Your task to perform on an android device: find which apps use the phone's location Image 0: 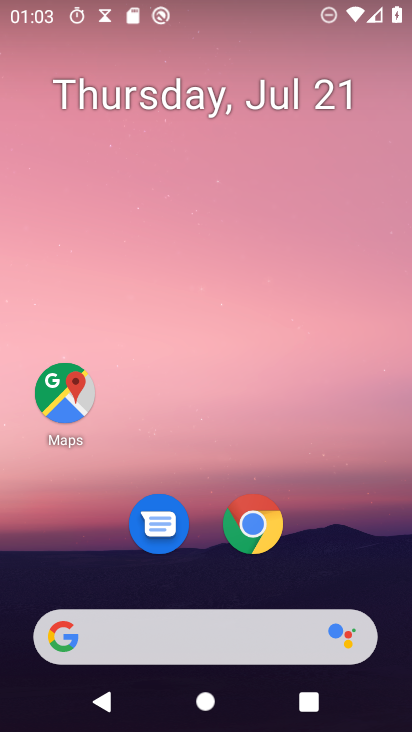
Step 0: drag from (253, 639) to (330, 236)
Your task to perform on an android device: find which apps use the phone's location Image 1: 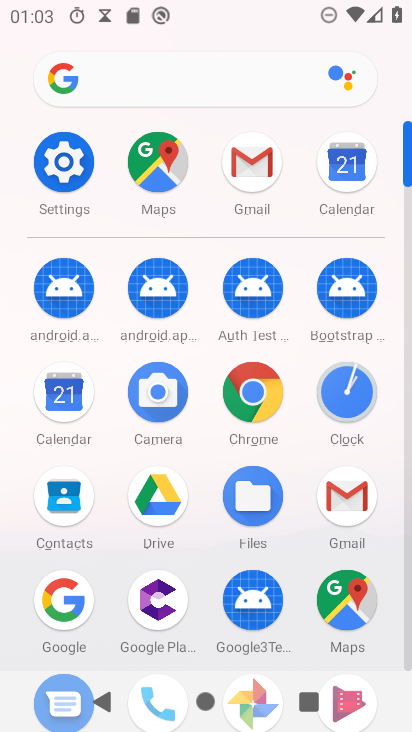
Step 1: click (71, 171)
Your task to perform on an android device: find which apps use the phone's location Image 2: 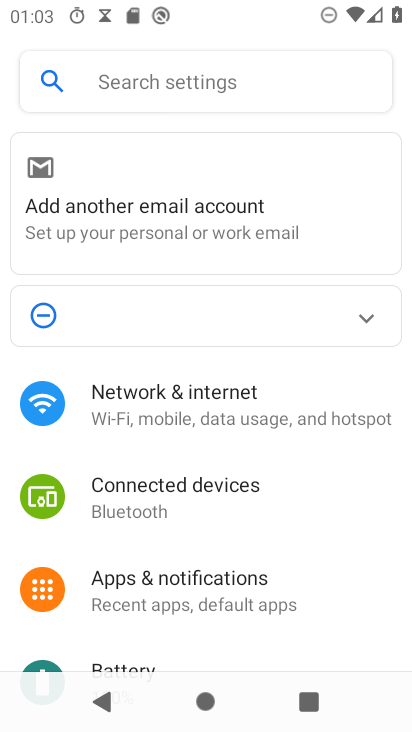
Step 2: drag from (174, 635) to (284, 57)
Your task to perform on an android device: find which apps use the phone's location Image 3: 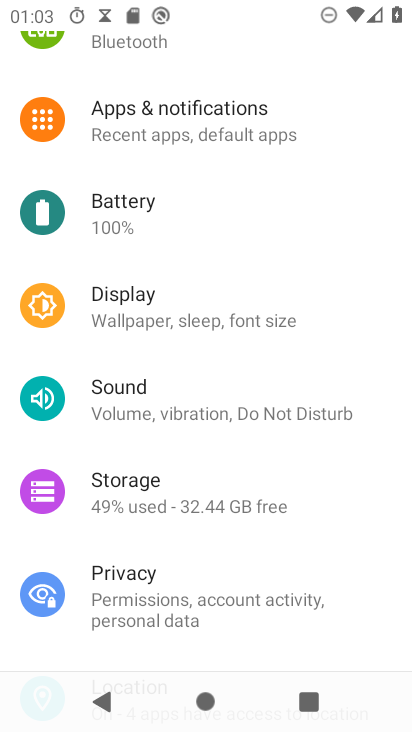
Step 3: drag from (188, 599) to (254, 102)
Your task to perform on an android device: find which apps use the phone's location Image 4: 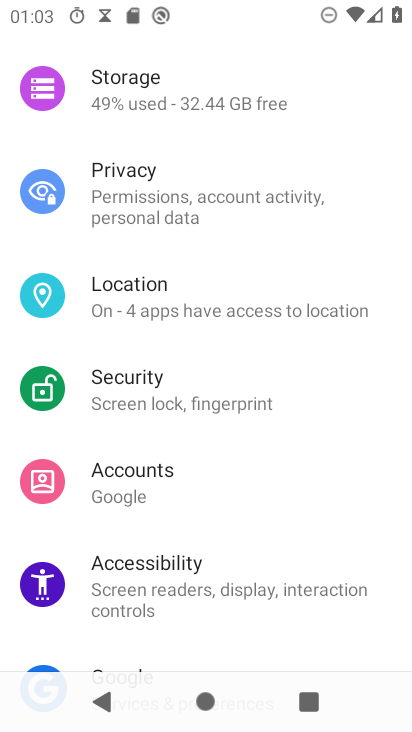
Step 4: click (152, 300)
Your task to perform on an android device: find which apps use the phone's location Image 5: 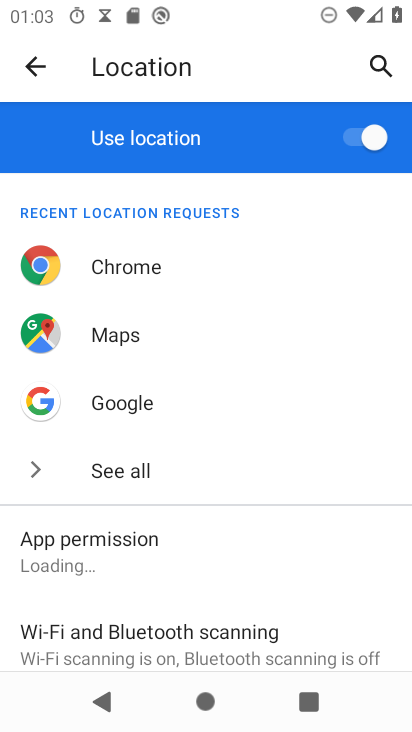
Step 5: click (68, 551)
Your task to perform on an android device: find which apps use the phone's location Image 6: 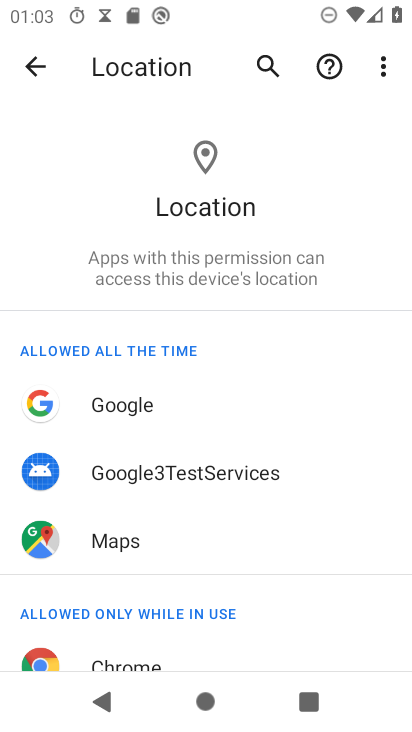
Step 6: drag from (185, 635) to (303, 71)
Your task to perform on an android device: find which apps use the phone's location Image 7: 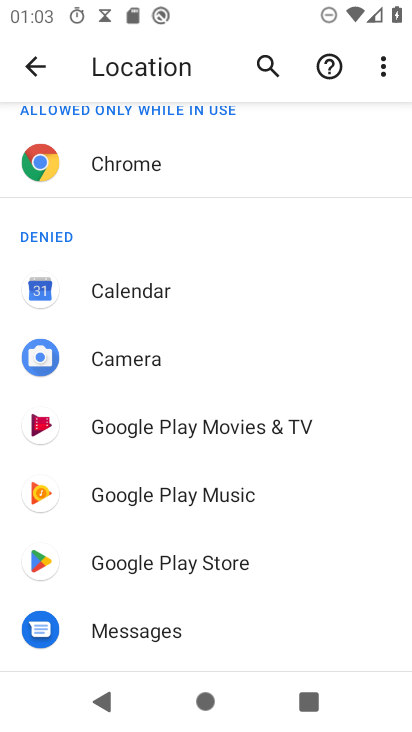
Step 7: drag from (181, 582) to (303, 70)
Your task to perform on an android device: find which apps use the phone's location Image 8: 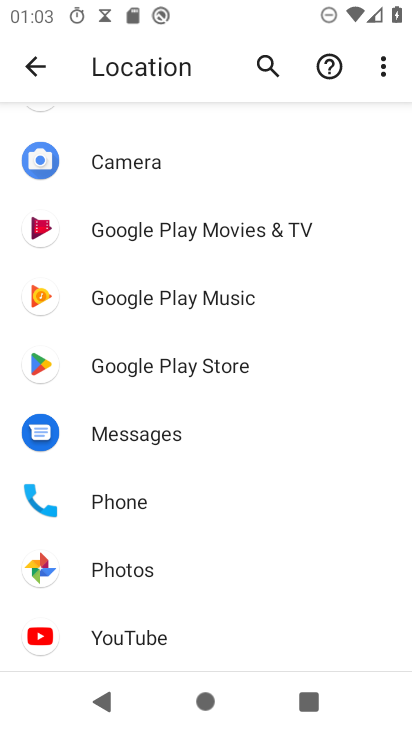
Step 8: click (131, 506)
Your task to perform on an android device: find which apps use the phone's location Image 9: 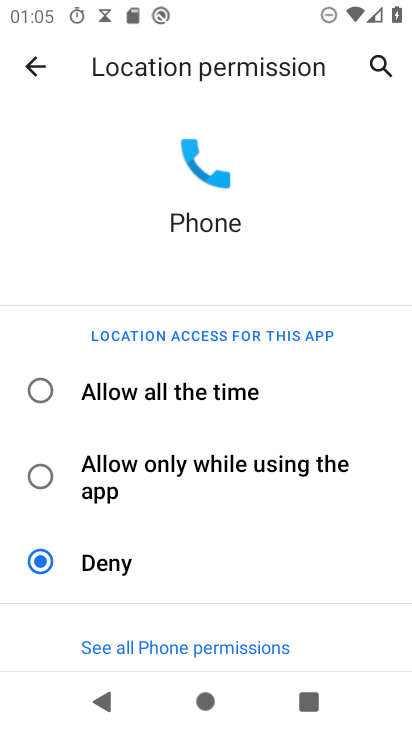
Step 9: task complete